Your task to perform on an android device: Show me recent news Image 0: 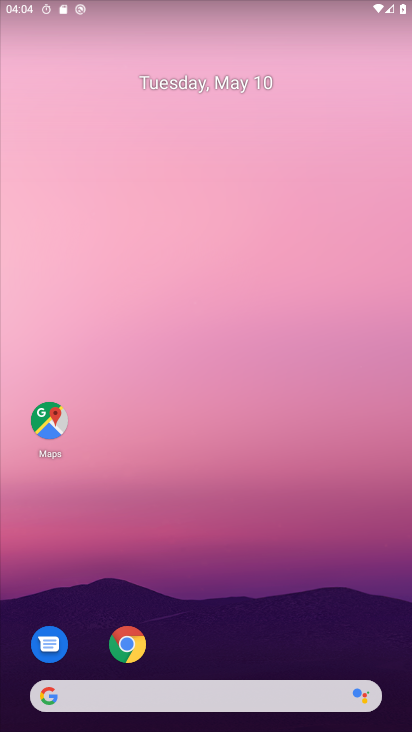
Step 0: drag from (24, 487) to (410, 537)
Your task to perform on an android device: Show me recent news Image 1: 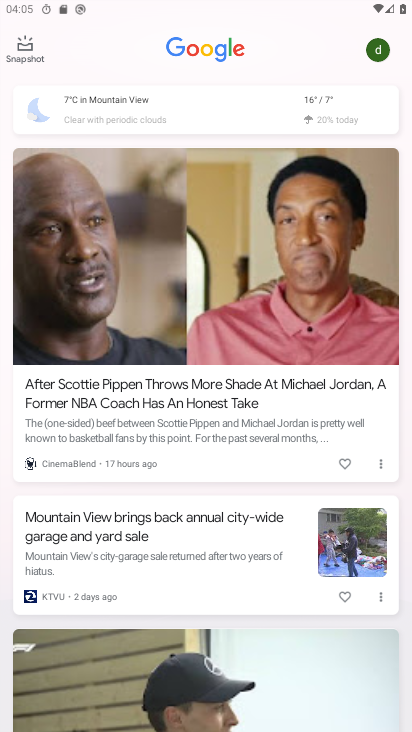
Step 1: task complete